Your task to perform on an android device: Is it going to rain this weekend? Image 0: 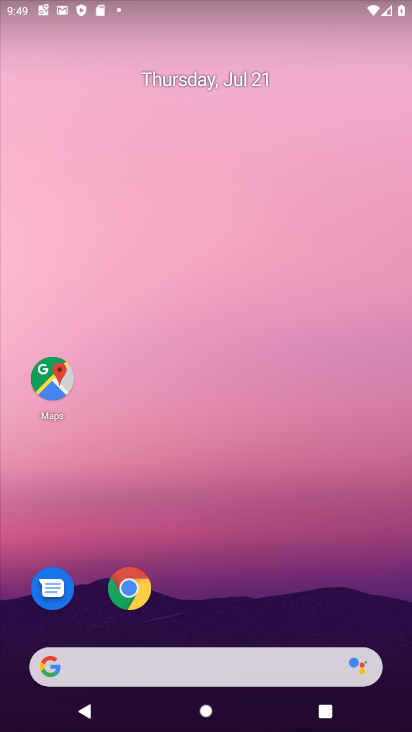
Step 0: click (128, 657)
Your task to perform on an android device: Is it going to rain this weekend? Image 1: 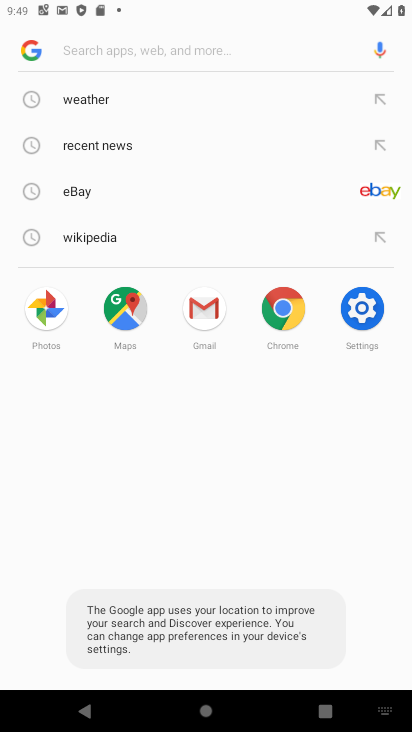
Step 1: click (94, 96)
Your task to perform on an android device: Is it going to rain this weekend? Image 2: 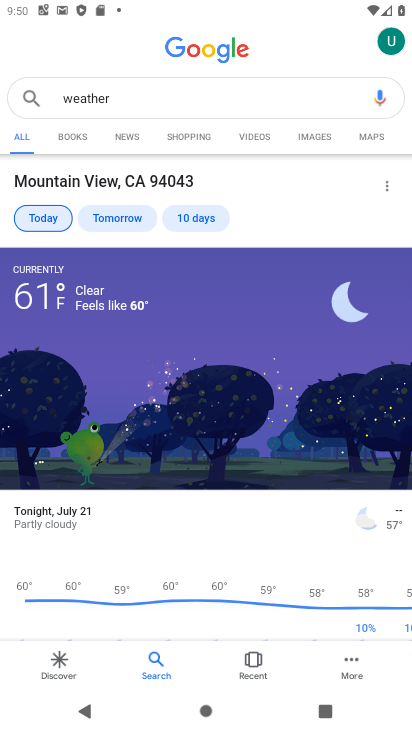
Step 2: click (184, 214)
Your task to perform on an android device: Is it going to rain this weekend? Image 3: 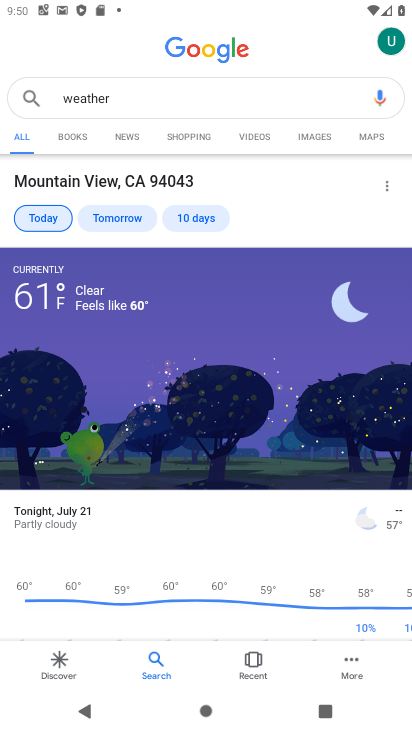
Step 3: click (201, 216)
Your task to perform on an android device: Is it going to rain this weekend? Image 4: 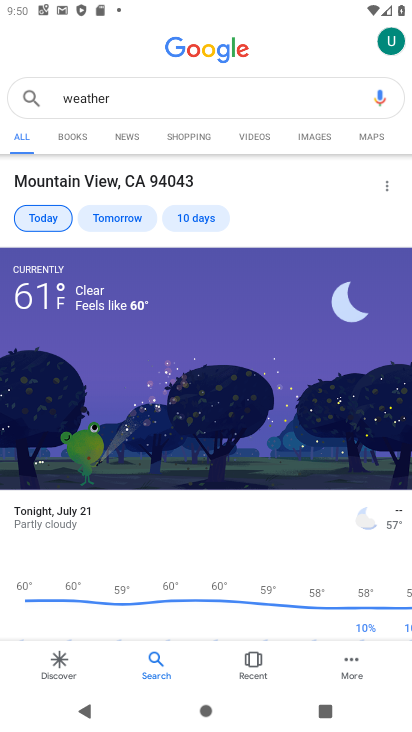
Step 4: click (188, 222)
Your task to perform on an android device: Is it going to rain this weekend? Image 5: 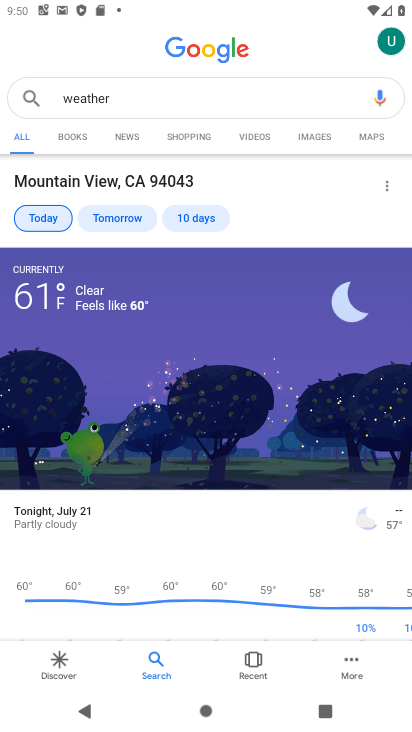
Step 5: task complete